Your task to perform on an android device: turn notification dots on Image 0: 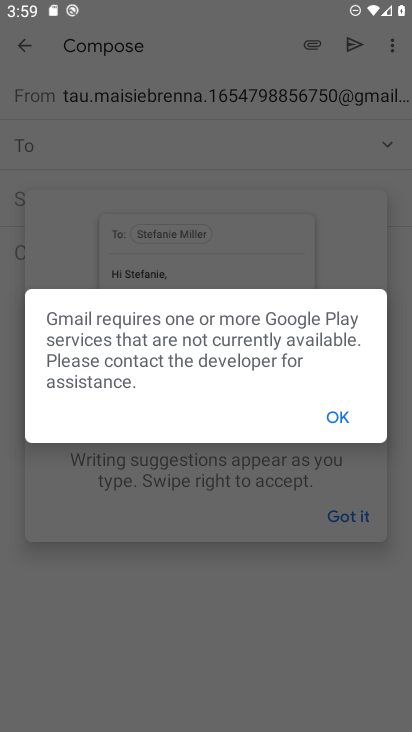
Step 0: press back button
Your task to perform on an android device: turn notification dots on Image 1: 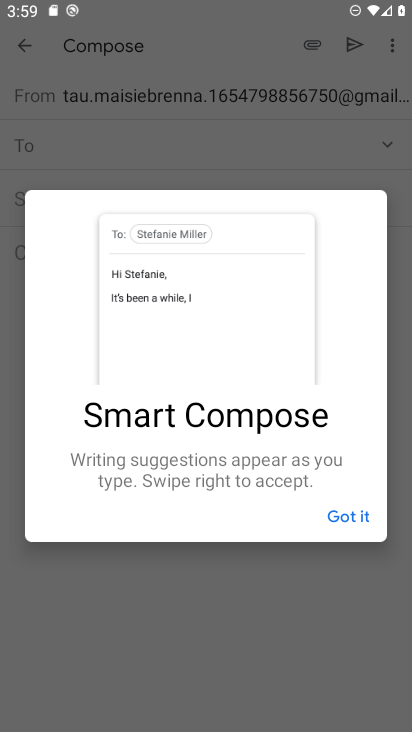
Step 1: press home button
Your task to perform on an android device: turn notification dots on Image 2: 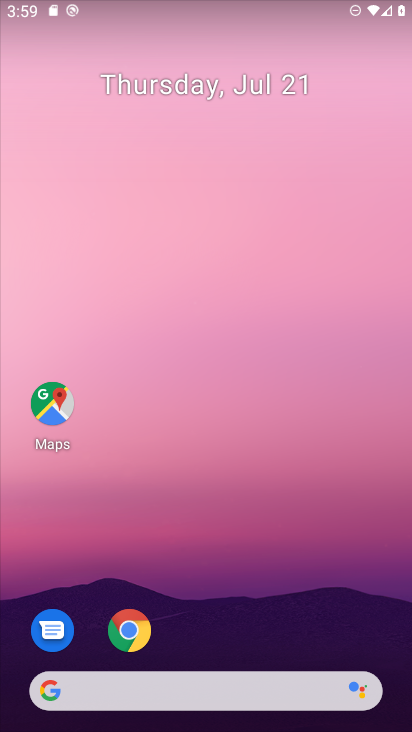
Step 2: drag from (198, 659) to (323, 0)
Your task to perform on an android device: turn notification dots on Image 3: 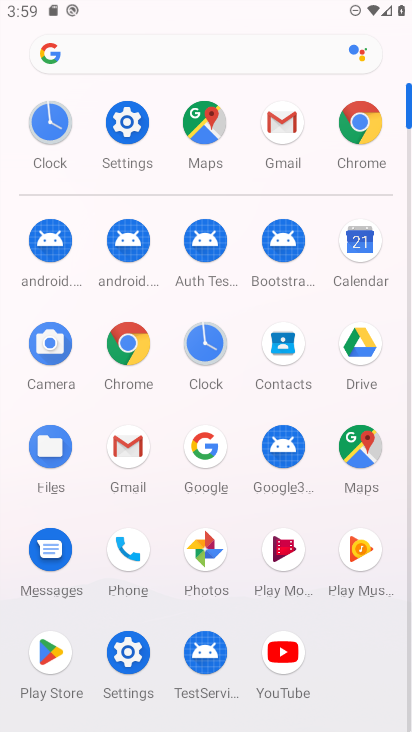
Step 3: click (132, 116)
Your task to perform on an android device: turn notification dots on Image 4: 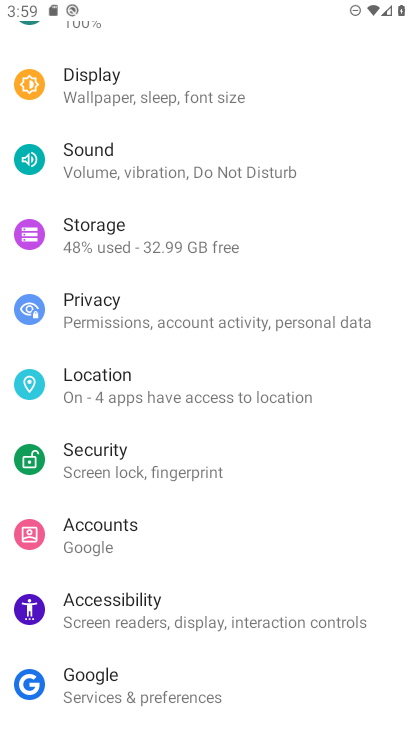
Step 4: drag from (173, 186) to (187, 713)
Your task to perform on an android device: turn notification dots on Image 5: 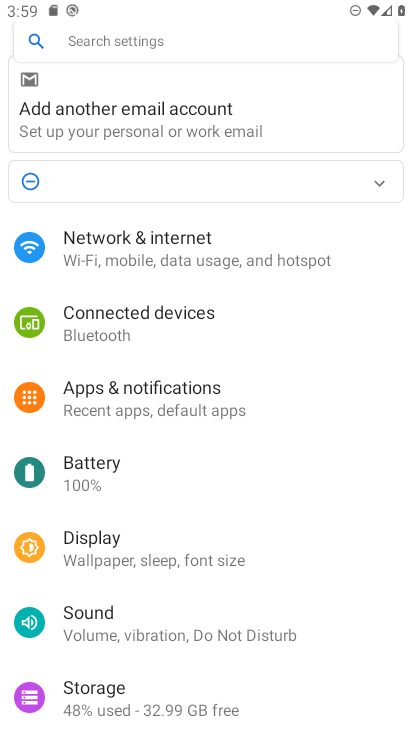
Step 5: click (226, 406)
Your task to perform on an android device: turn notification dots on Image 6: 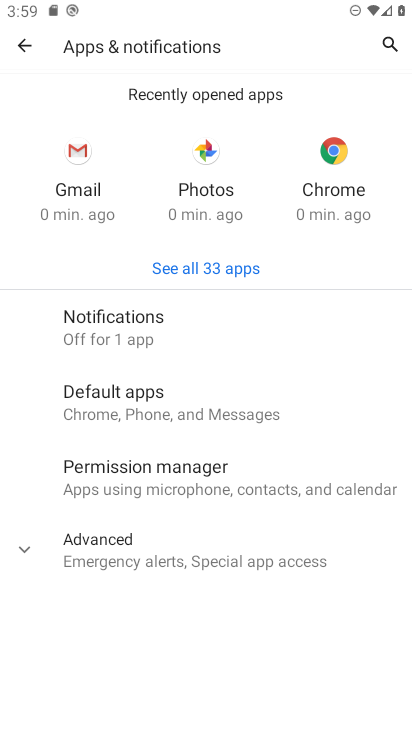
Step 6: click (136, 330)
Your task to perform on an android device: turn notification dots on Image 7: 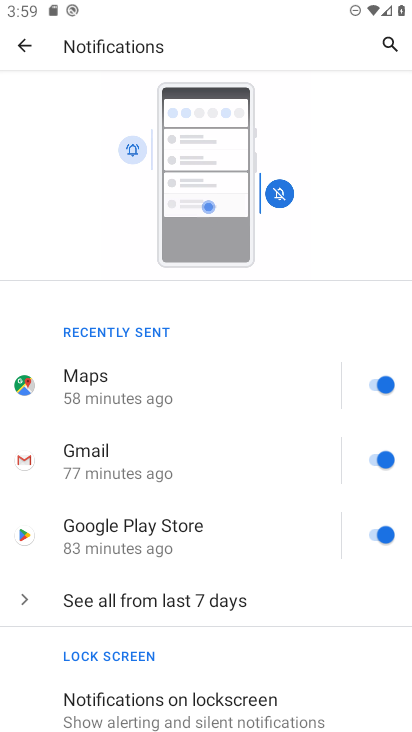
Step 7: drag from (157, 660) to (220, 161)
Your task to perform on an android device: turn notification dots on Image 8: 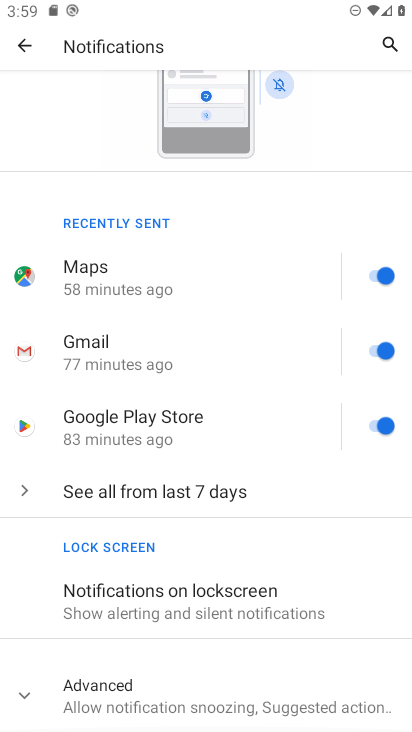
Step 8: click (234, 675)
Your task to perform on an android device: turn notification dots on Image 9: 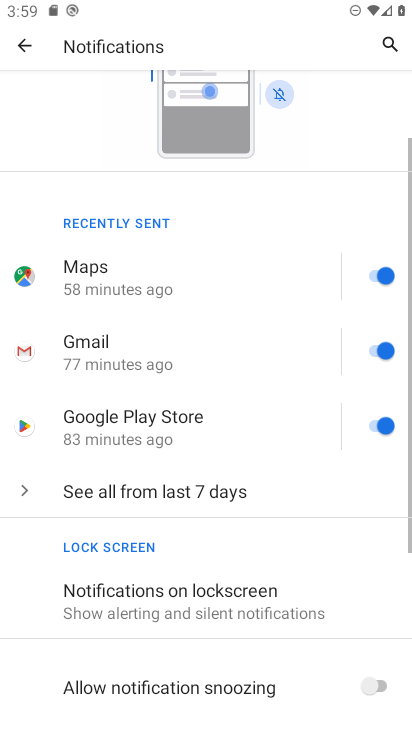
Step 9: task complete